Your task to perform on an android device: set default search engine in the chrome app Image 0: 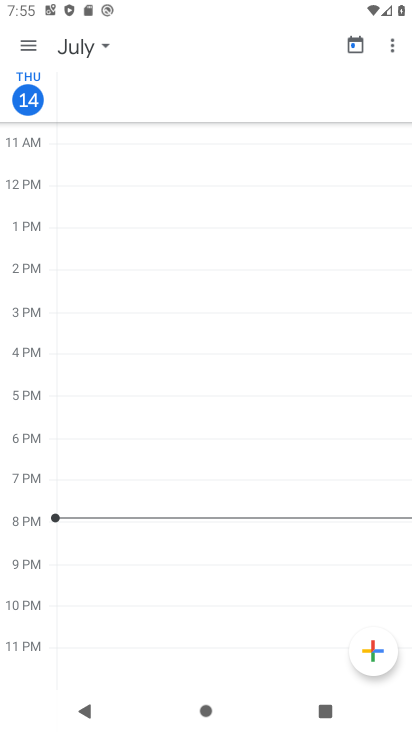
Step 0: press home button
Your task to perform on an android device: set default search engine in the chrome app Image 1: 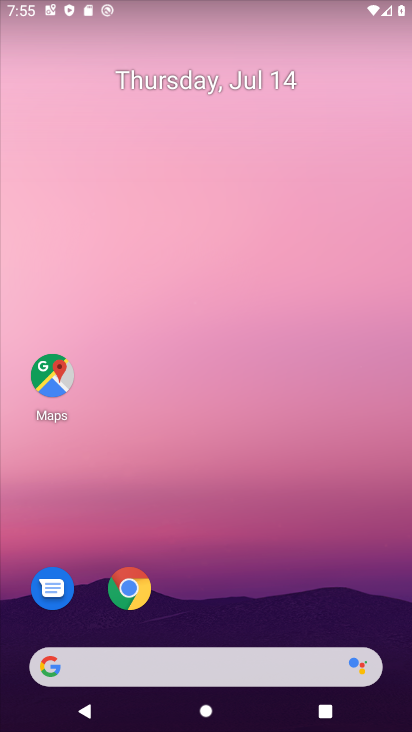
Step 1: drag from (291, 578) to (289, 116)
Your task to perform on an android device: set default search engine in the chrome app Image 2: 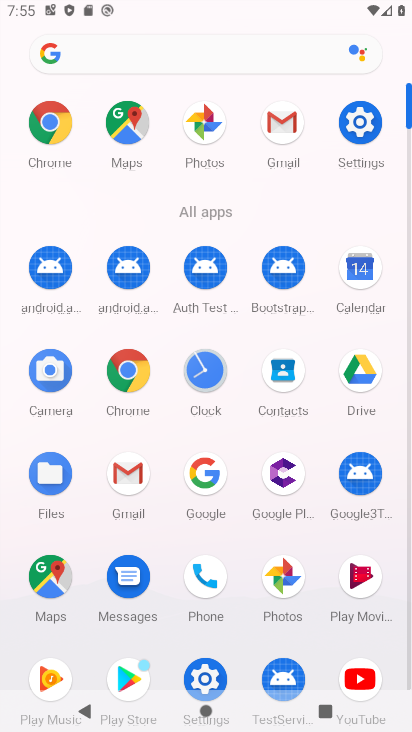
Step 2: click (123, 376)
Your task to perform on an android device: set default search engine in the chrome app Image 3: 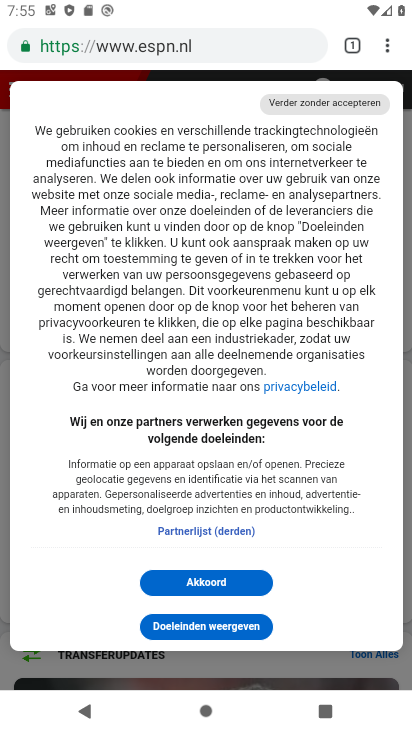
Step 3: drag from (385, 46) to (238, 552)
Your task to perform on an android device: set default search engine in the chrome app Image 4: 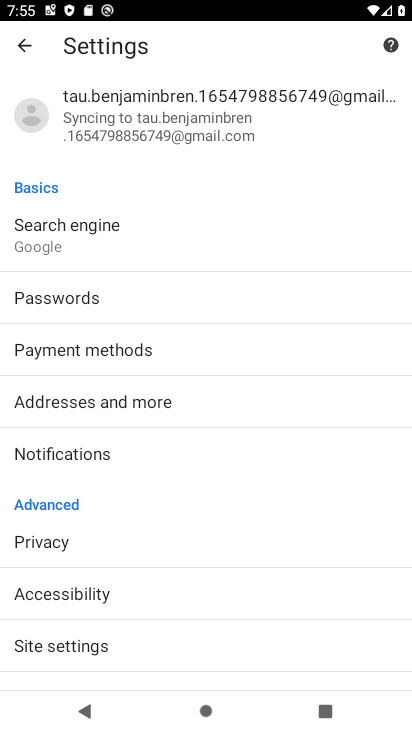
Step 4: click (89, 236)
Your task to perform on an android device: set default search engine in the chrome app Image 5: 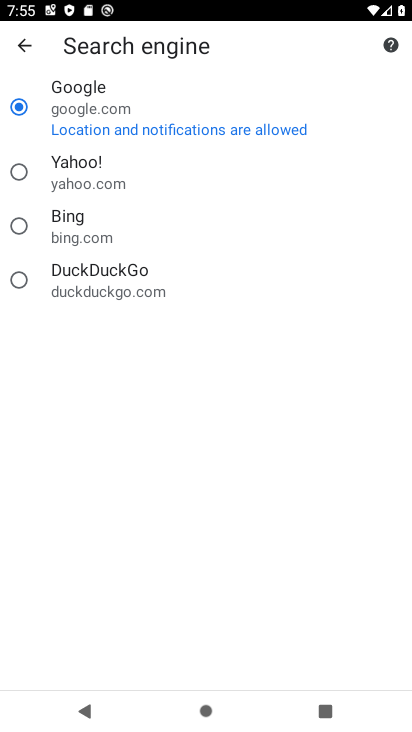
Step 5: task complete